Your task to perform on an android device: When is my next meeting? Image 0: 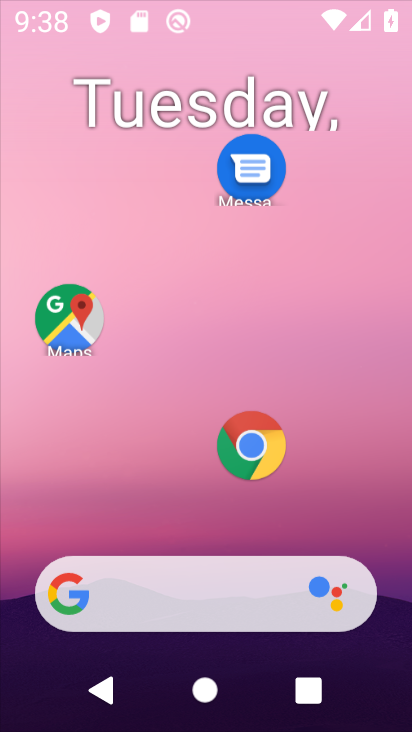
Step 0: click (258, 31)
Your task to perform on an android device: When is my next meeting? Image 1: 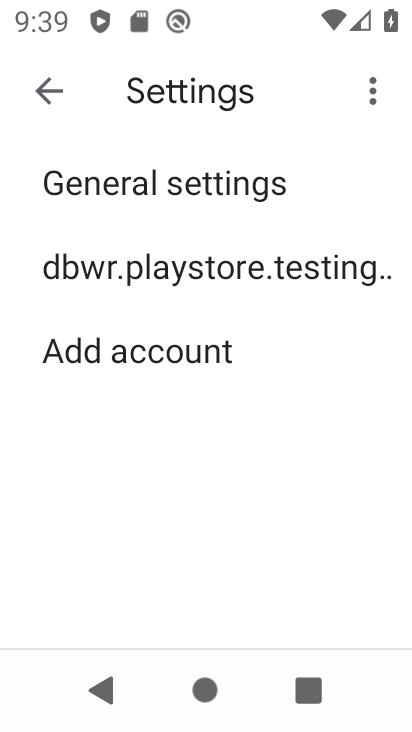
Step 1: press back button
Your task to perform on an android device: When is my next meeting? Image 2: 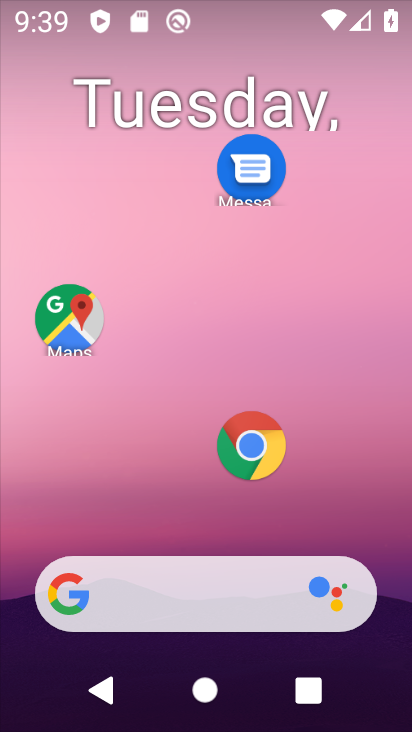
Step 2: drag from (177, 443) to (279, 1)
Your task to perform on an android device: When is my next meeting? Image 3: 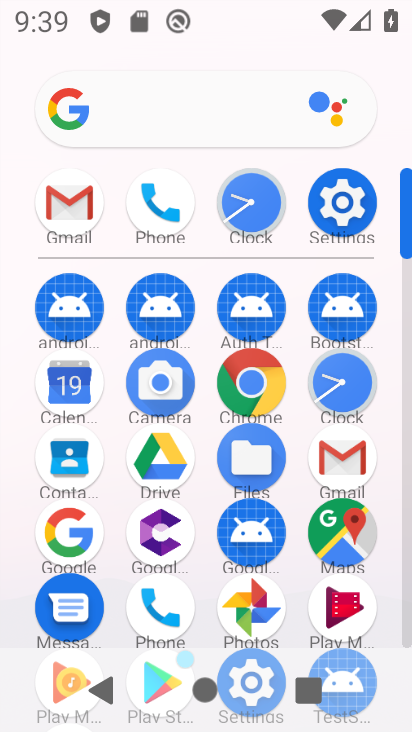
Step 3: click (73, 375)
Your task to perform on an android device: When is my next meeting? Image 4: 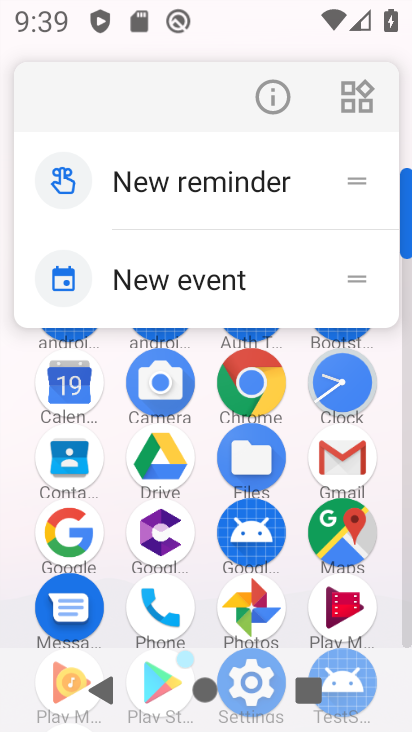
Step 4: click (72, 384)
Your task to perform on an android device: When is my next meeting? Image 5: 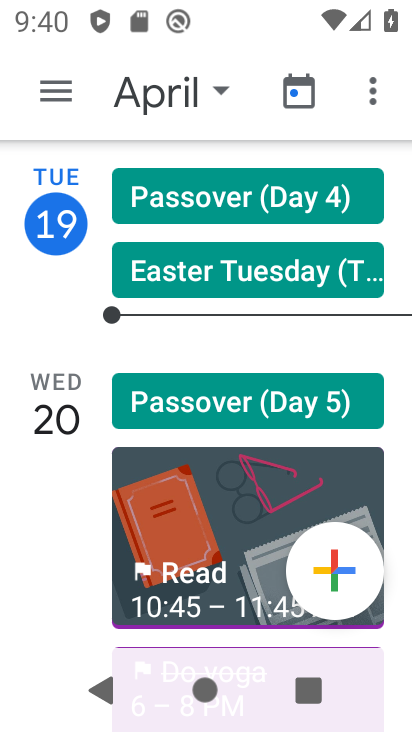
Step 5: task complete